Your task to perform on an android device: toggle priority inbox in the gmail app Image 0: 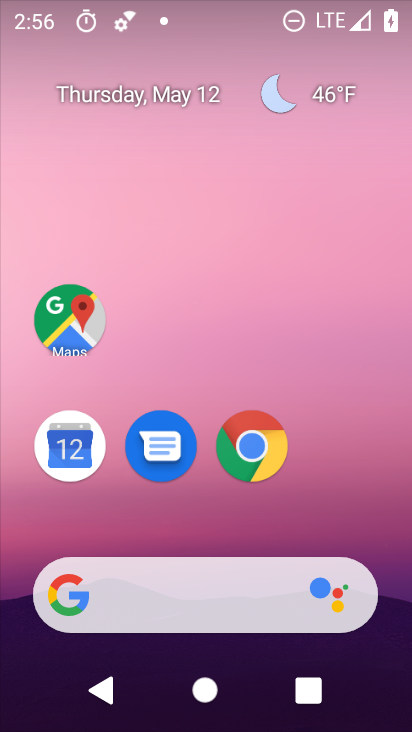
Step 0: drag from (208, 516) to (227, 120)
Your task to perform on an android device: toggle priority inbox in the gmail app Image 1: 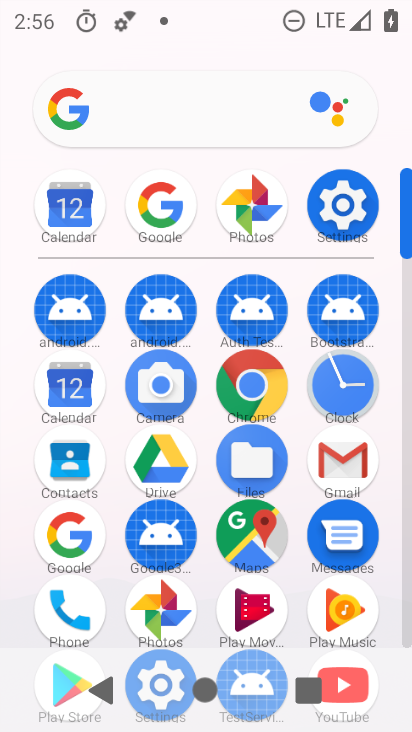
Step 1: click (327, 456)
Your task to perform on an android device: toggle priority inbox in the gmail app Image 2: 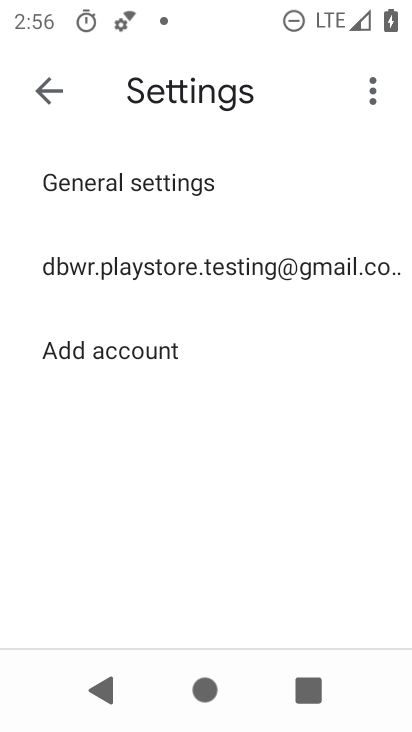
Step 2: click (243, 277)
Your task to perform on an android device: toggle priority inbox in the gmail app Image 3: 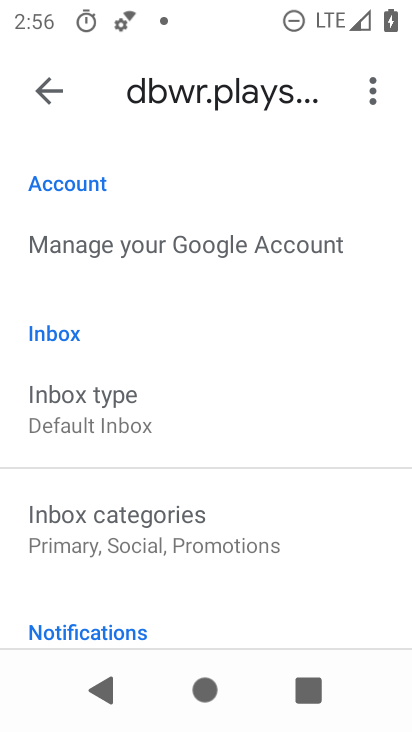
Step 3: click (114, 423)
Your task to perform on an android device: toggle priority inbox in the gmail app Image 4: 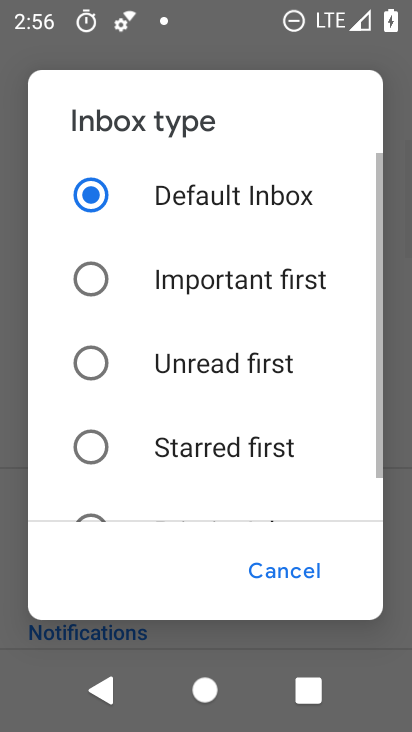
Step 4: drag from (155, 469) to (260, 195)
Your task to perform on an android device: toggle priority inbox in the gmail app Image 5: 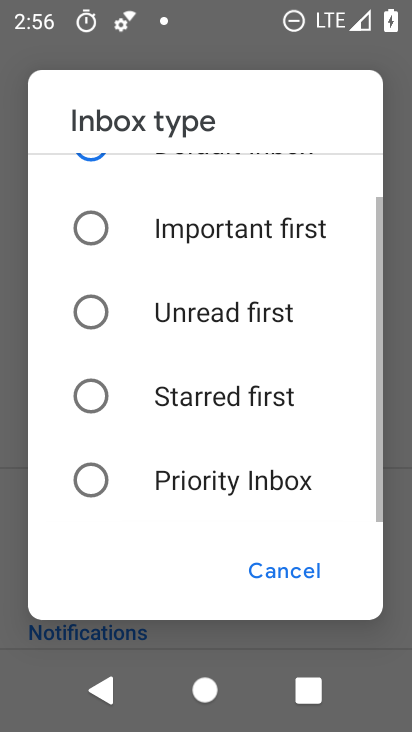
Step 5: click (146, 478)
Your task to perform on an android device: toggle priority inbox in the gmail app Image 6: 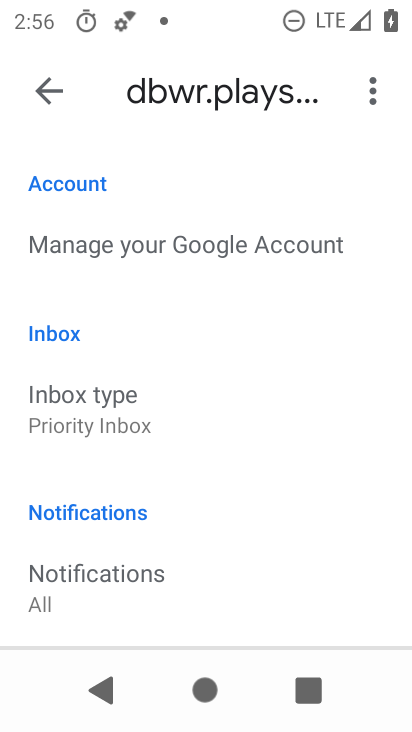
Step 6: task complete